Your task to perform on an android device: Do I have any events tomorrow? Image 0: 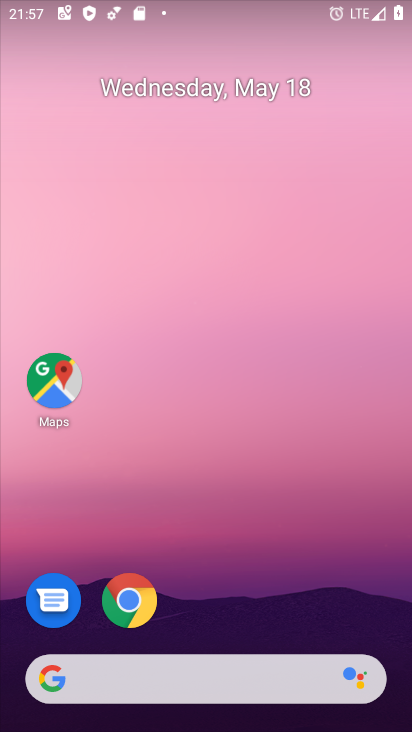
Step 0: drag from (279, 598) to (327, 52)
Your task to perform on an android device: Do I have any events tomorrow? Image 1: 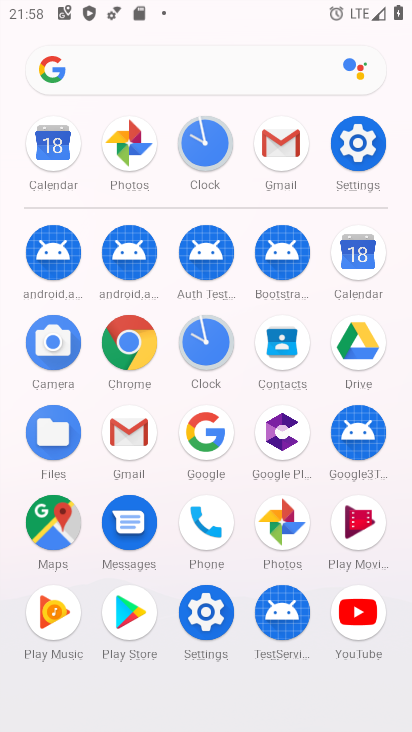
Step 1: click (369, 252)
Your task to perform on an android device: Do I have any events tomorrow? Image 2: 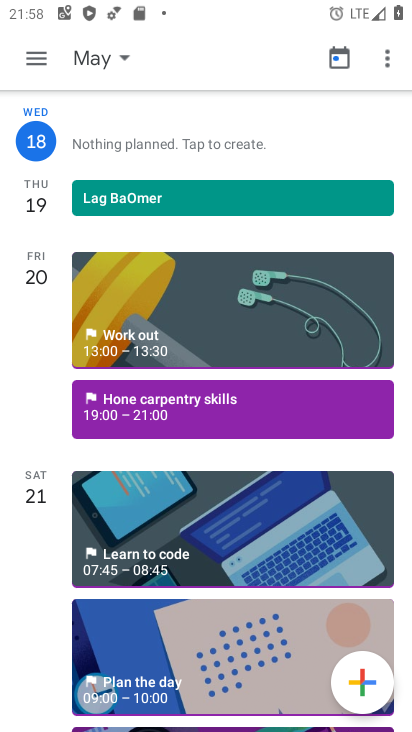
Step 2: drag from (188, 330) to (182, 495)
Your task to perform on an android device: Do I have any events tomorrow? Image 3: 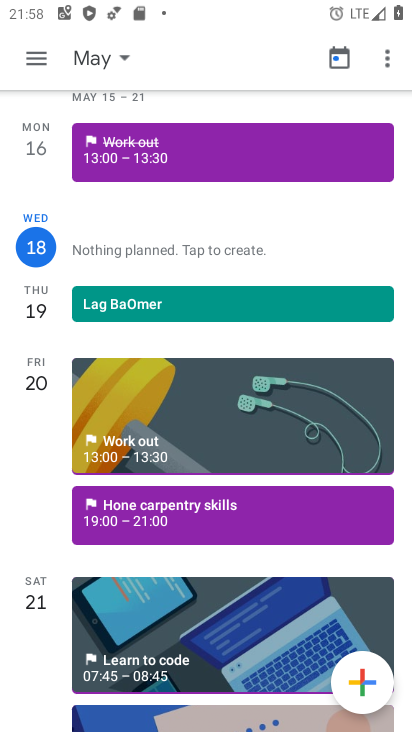
Step 3: drag from (213, 635) to (239, 471)
Your task to perform on an android device: Do I have any events tomorrow? Image 4: 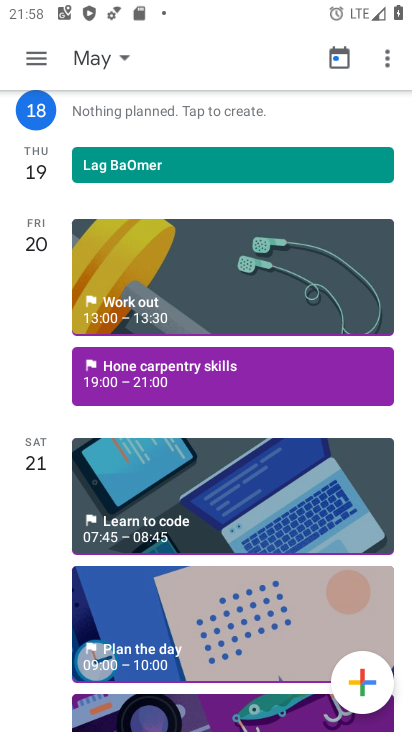
Step 4: drag from (229, 251) to (232, 404)
Your task to perform on an android device: Do I have any events tomorrow? Image 5: 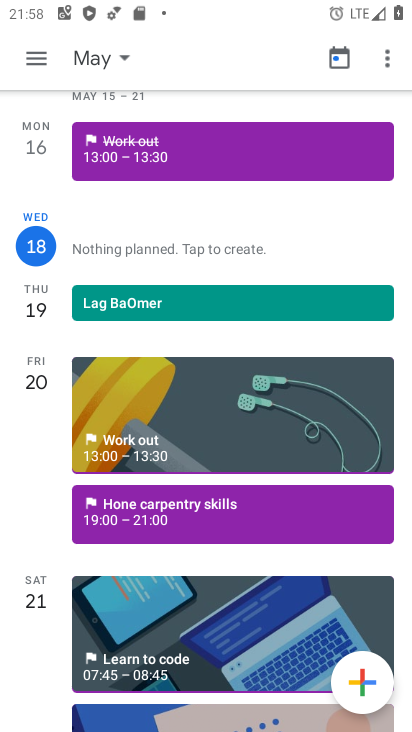
Step 5: click (151, 418)
Your task to perform on an android device: Do I have any events tomorrow? Image 6: 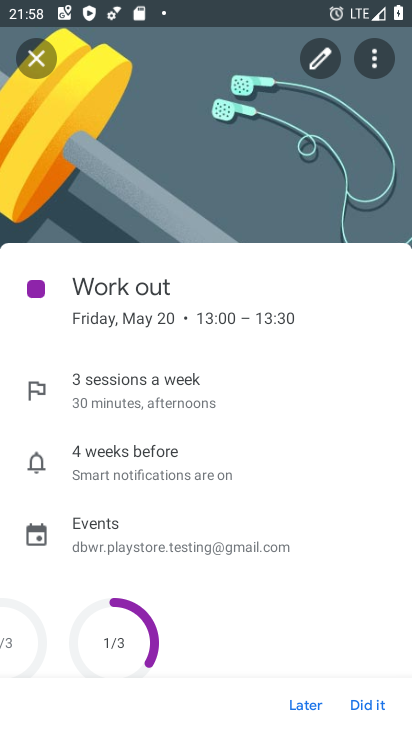
Step 6: task complete